Your task to perform on an android device: turn on showing notifications on the lock screen Image 0: 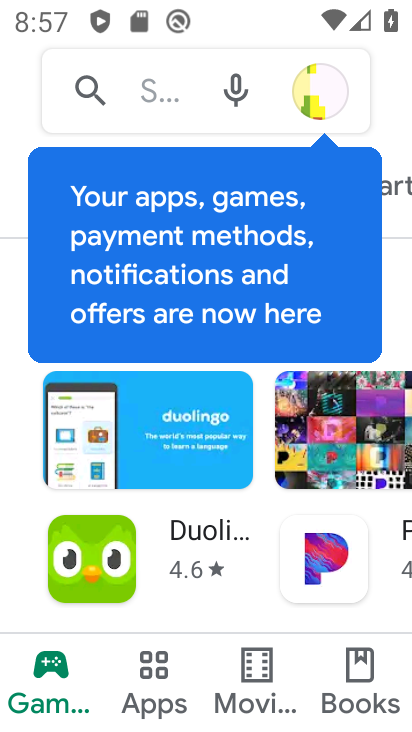
Step 0: press home button
Your task to perform on an android device: turn on showing notifications on the lock screen Image 1: 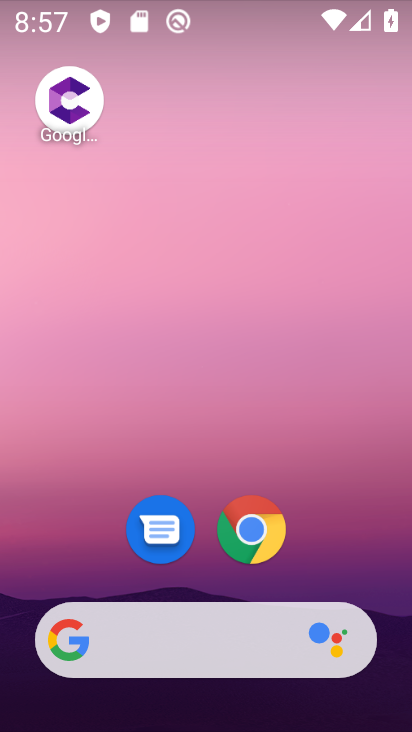
Step 1: drag from (188, 604) to (289, 220)
Your task to perform on an android device: turn on showing notifications on the lock screen Image 2: 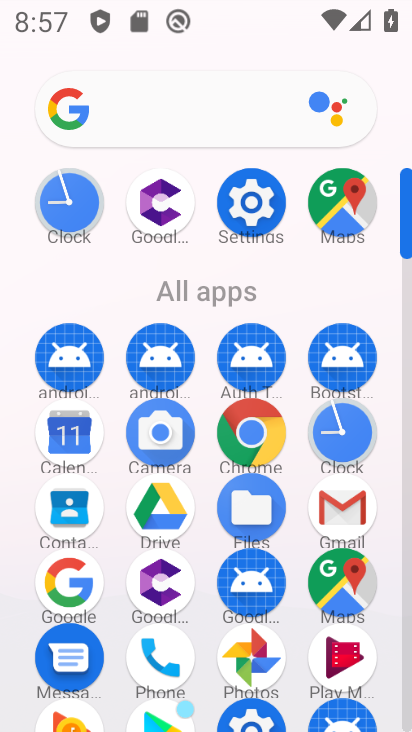
Step 2: drag from (294, 690) to (291, 391)
Your task to perform on an android device: turn on showing notifications on the lock screen Image 3: 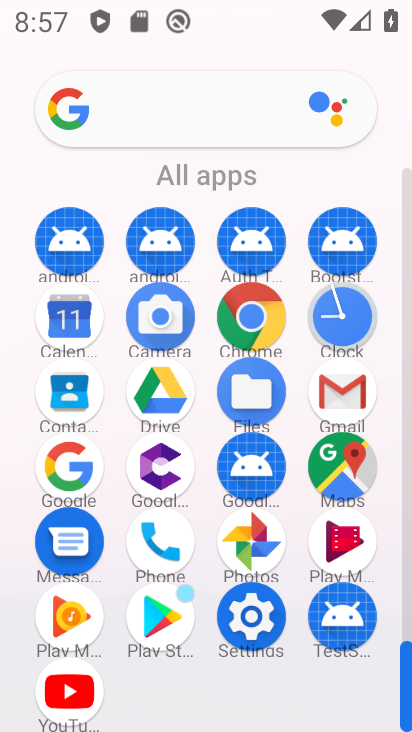
Step 3: click (264, 613)
Your task to perform on an android device: turn on showing notifications on the lock screen Image 4: 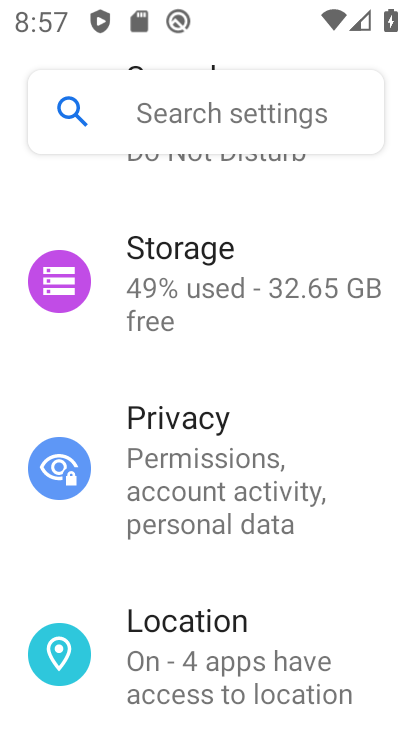
Step 4: click (202, 438)
Your task to perform on an android device: turn on showing notifications on the lock screen Image 5: 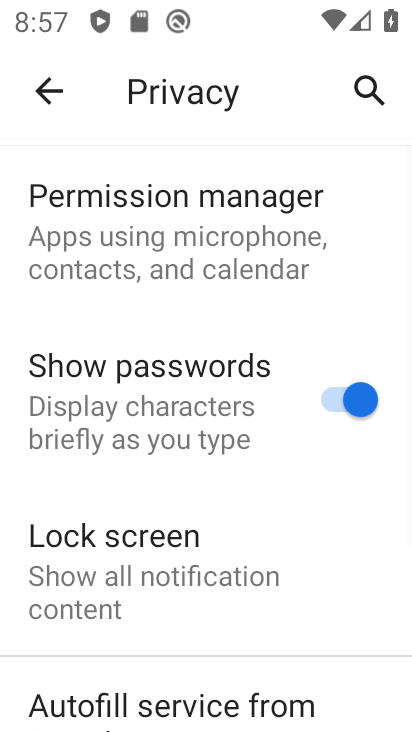
Step 5: click (165, 554)
Your task to perform on an android device: turn on showing notifications on the lock screen Image 6: 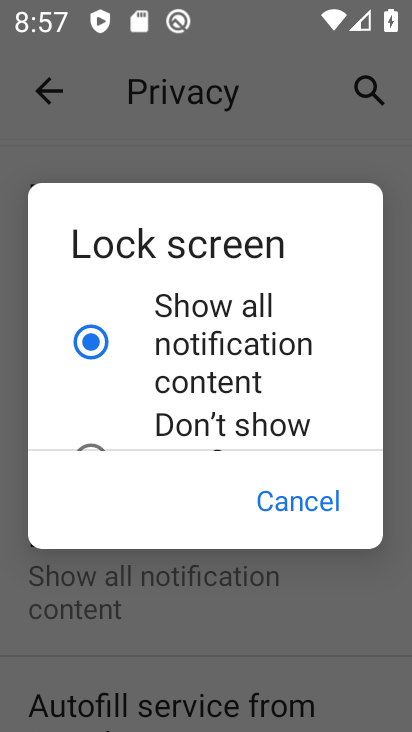
Step 6: task complete